Your task to perform on an android device: snooze an email in the gmail app Image 0: 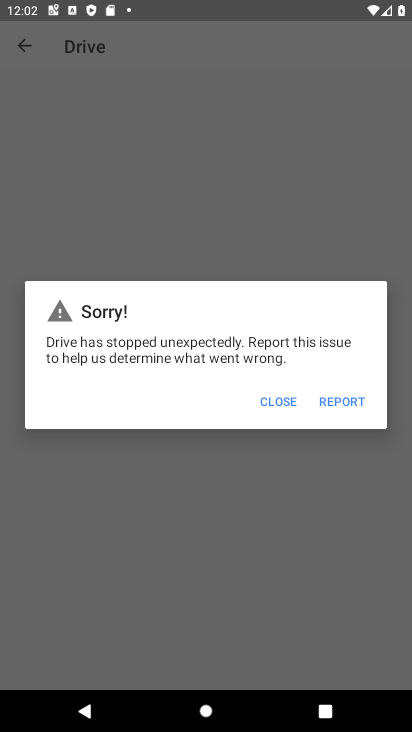
Step 0: press home button
Your task to perform on an android device: snooze an email in the gmail app Image 1: 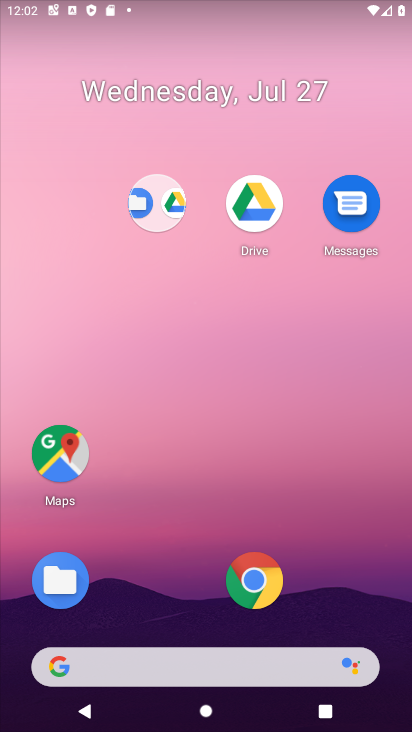
Step 1: drag from (185, 585) to (212, 312)
Your task to perform on an android device: snooze an email in the gmail app Image 2: 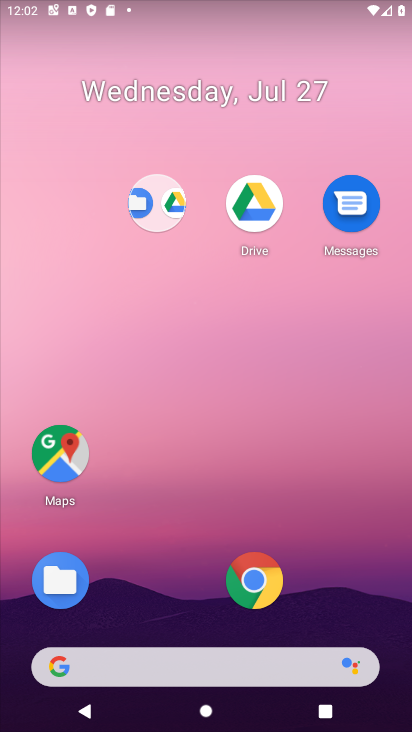
Step 2: drag from (165, 599) to (185, 155)
Your task to perform on an android device: snooze an email in the gmail app Image 3: 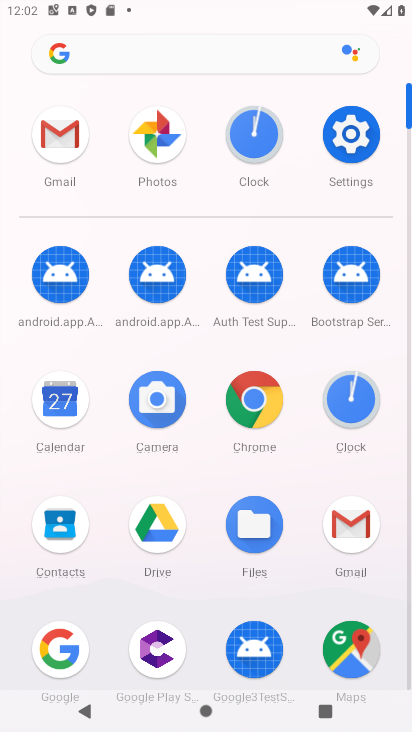
Step 3: click (31, 134)
Your task to perform on an android device: snooze an email in the gmail app Image 4: 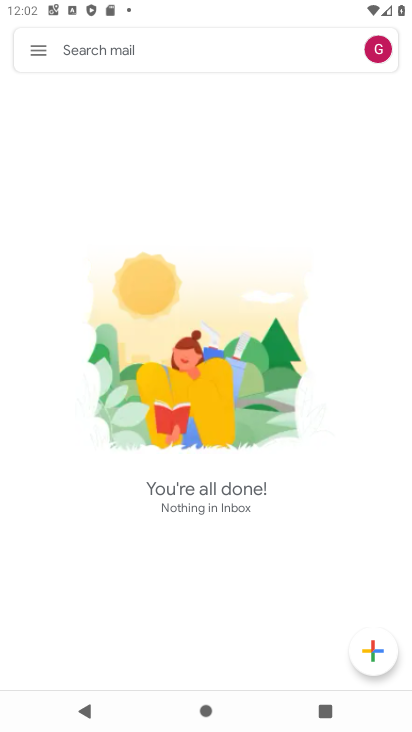
Step 4: task complete